Your task to perform on an android device: turn off airplane mode Image 0: 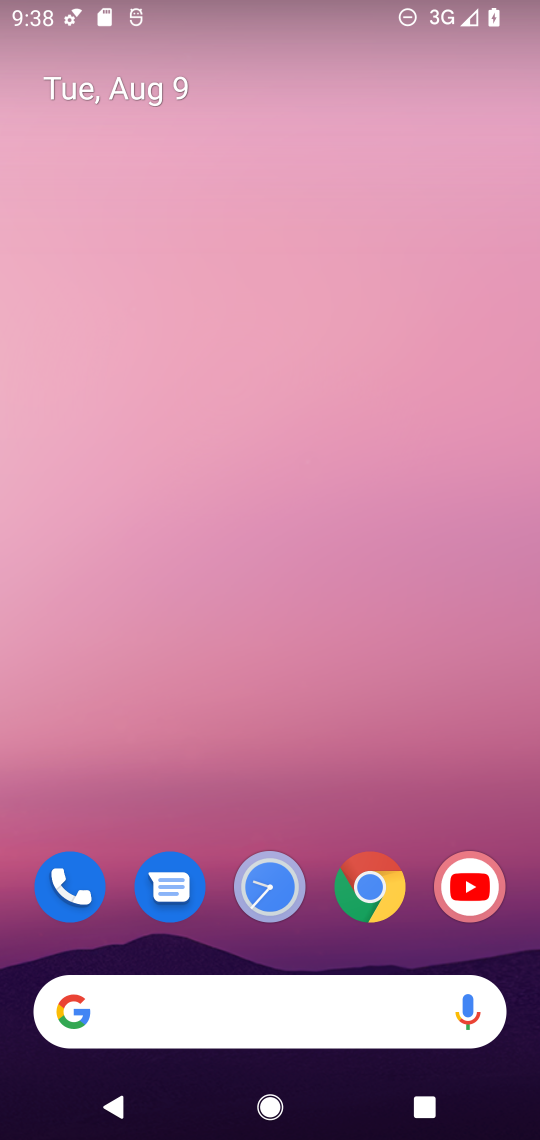
Step 0: drag from (301, 682) to (301, 88)
Your task to perform on an android device: turn off airplane mode Image 1: 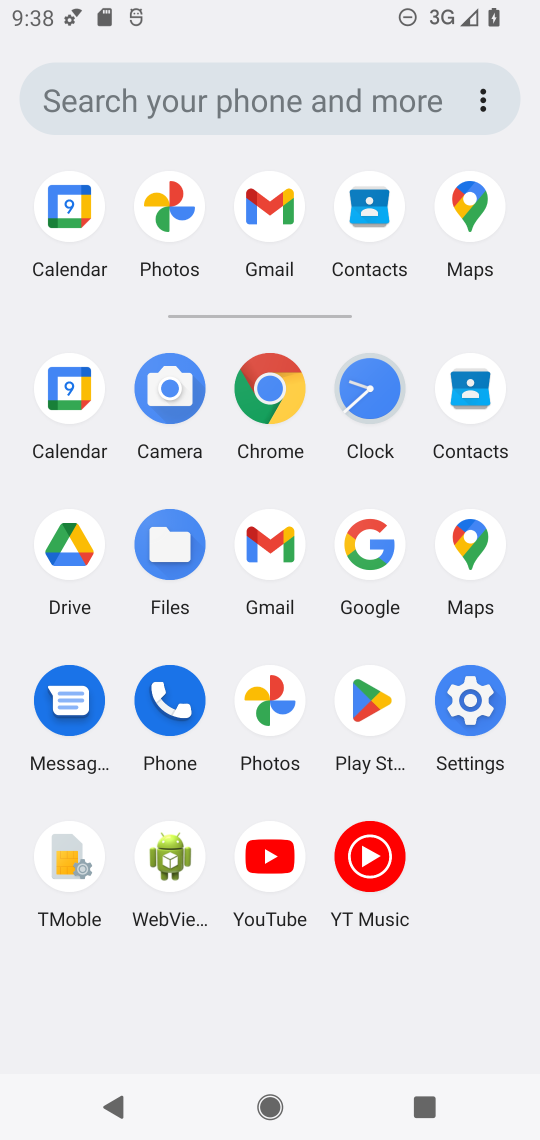
Step 1: click (493, 684)
Your task to perform on an android device: turn off airplane mode Image 2: 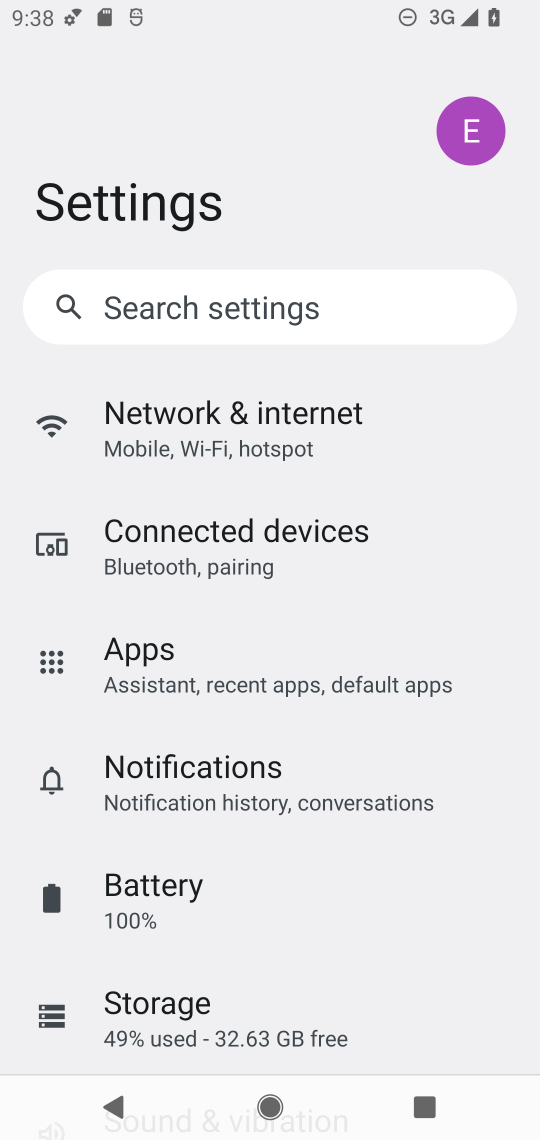
Step 2: click (281, 425)
Your task to perform on an android device: turn off airplane mode Image 3: 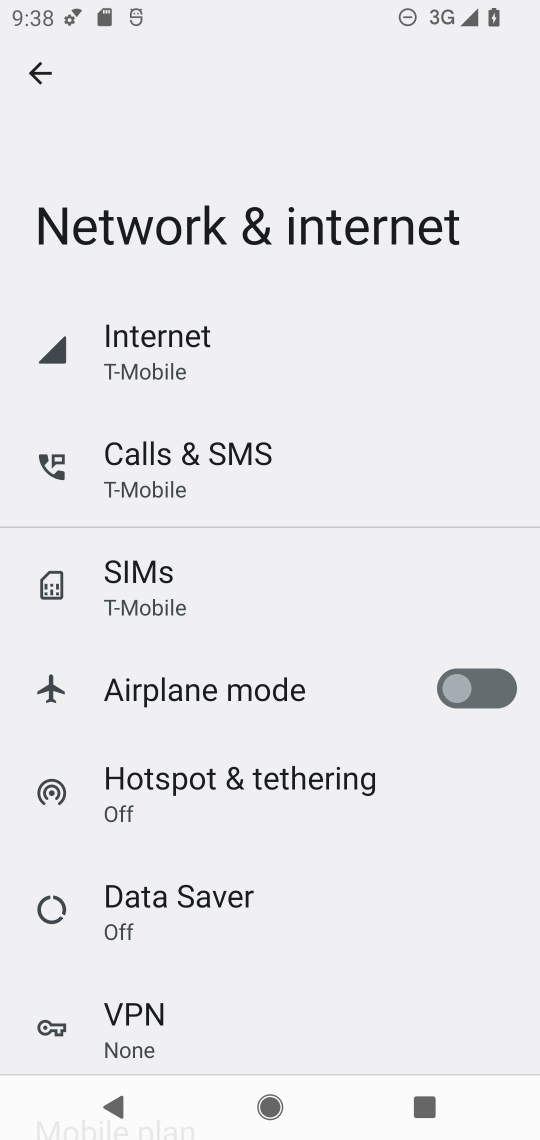
Step 3: click (164, 344)
Your task to perform on an android device: turn off airplane mode Image 4: 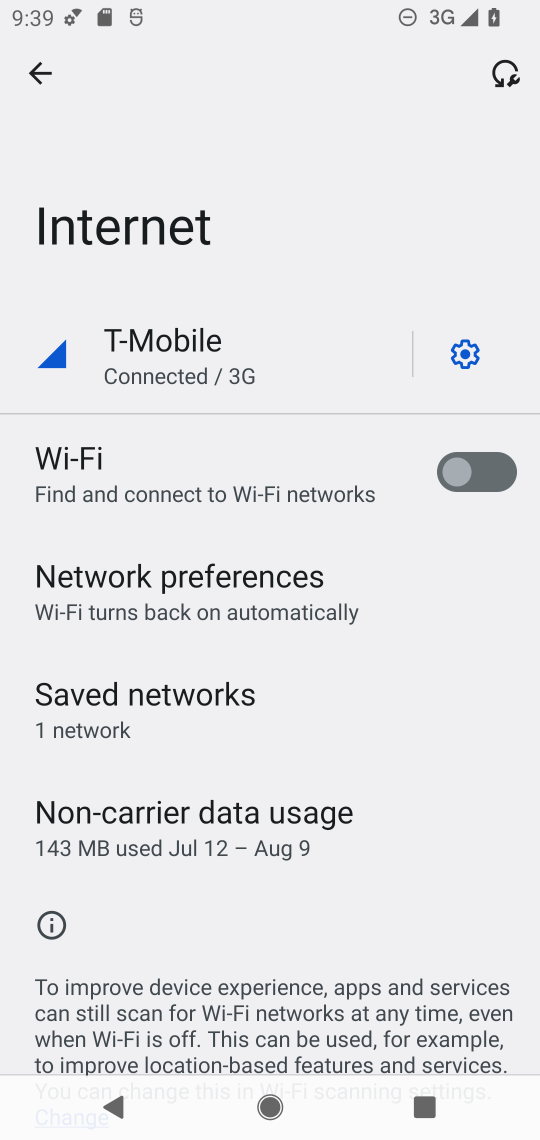
Step 4: click (47, 72)
Your task to perform on an android device: turn off airplane mode Image 5: 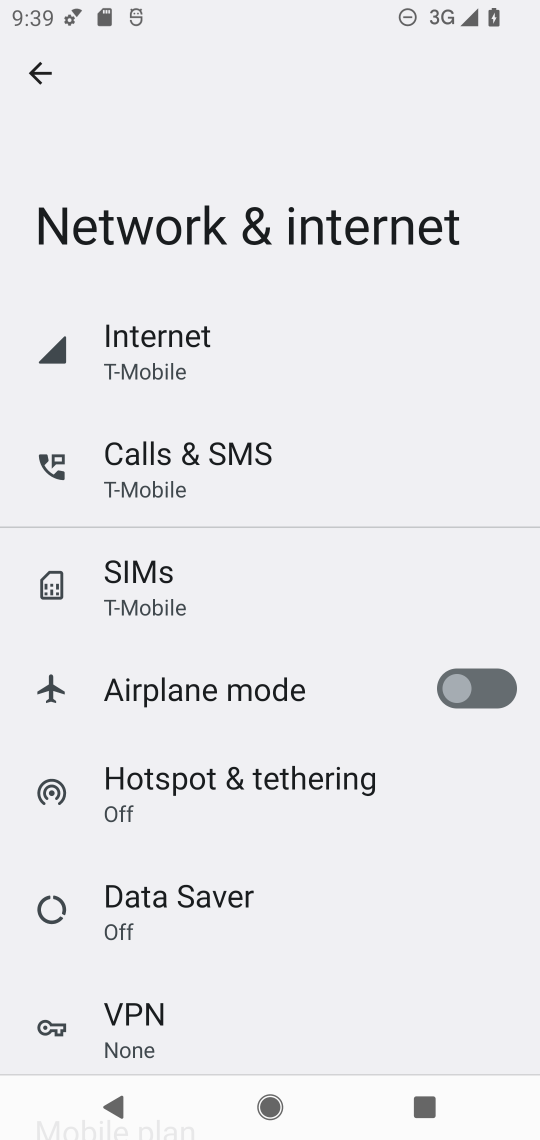
Step 5: task complete